Your task to perform on an android device: See recent photos Image 0: 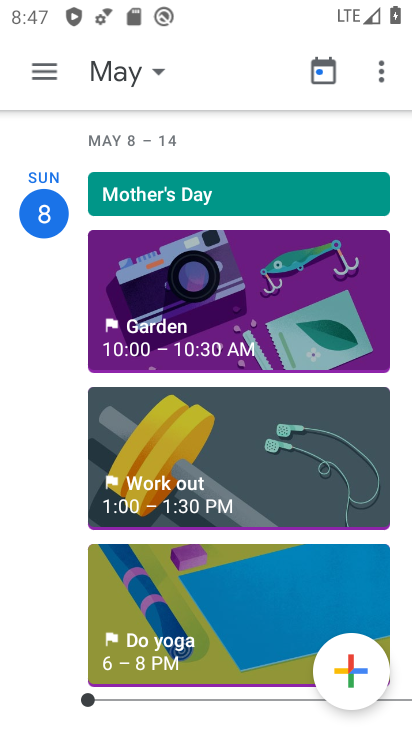
Step 0: press home button
Your task to perform on an android device: See recent photos Image 1: 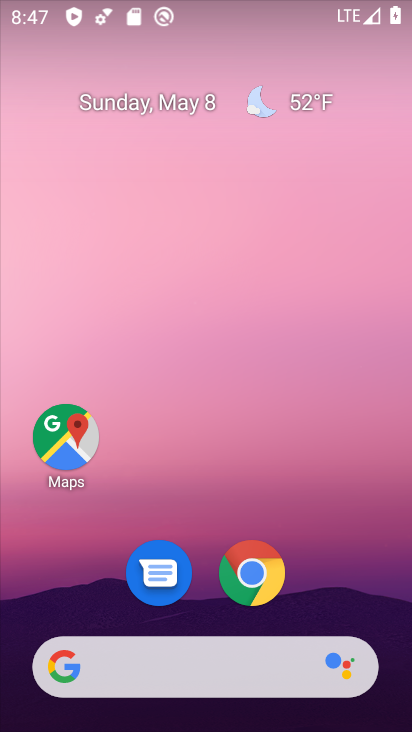
Step 1: drag from (218, 718) to (223, 224)
Your task to perform on an android device: See recent photos Image 2: 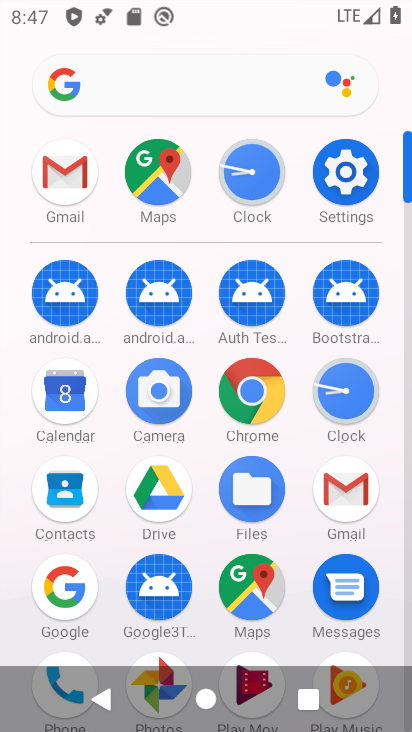
Step 2: drag from (198, 650) to (199, 305)
Your task to perform on an android device: See recent photos Image 3: 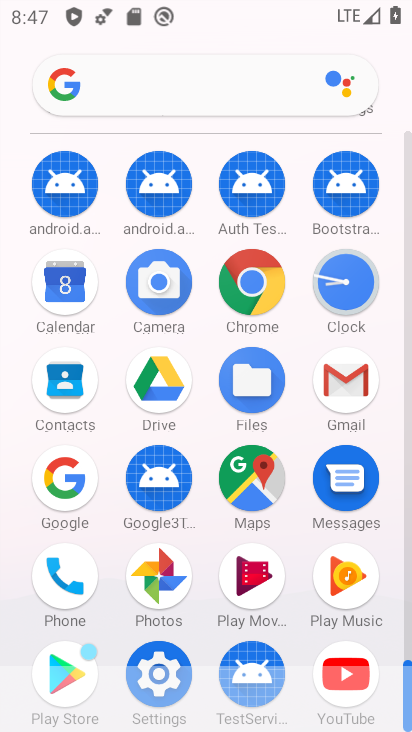
Step 3: click (160, 576)
Your task to perform on an android device: See recent photos Image 4: 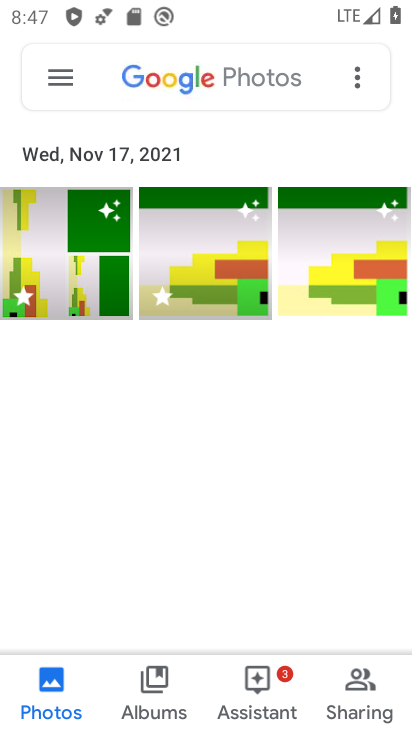
Step 4: click (82, 278)
Your task to perform on an android device: See recent photos Image 5: 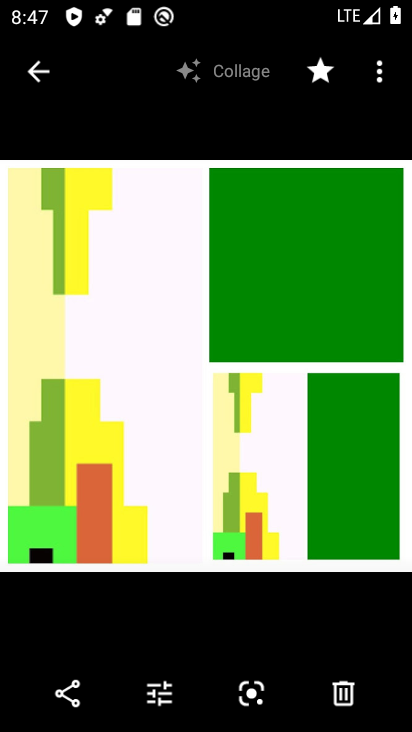
Step 5: task complete